Your task to perform on an android device: What's on my calendar today? Image 0: 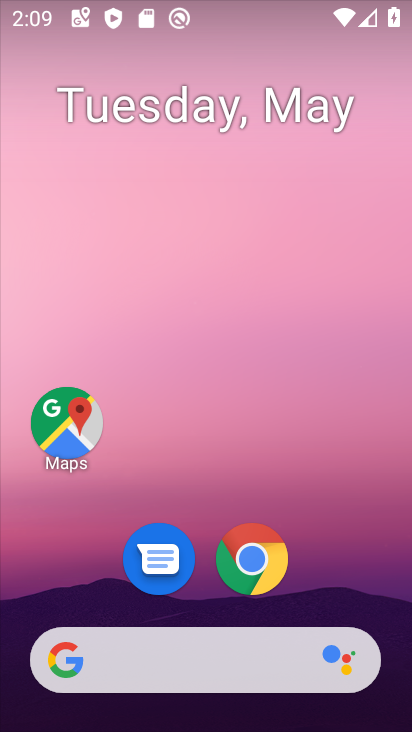
Step 0: drag from (197, 660) to (304, 160)
Your task to perform on an android device: What's on my calendar today? Image 1: 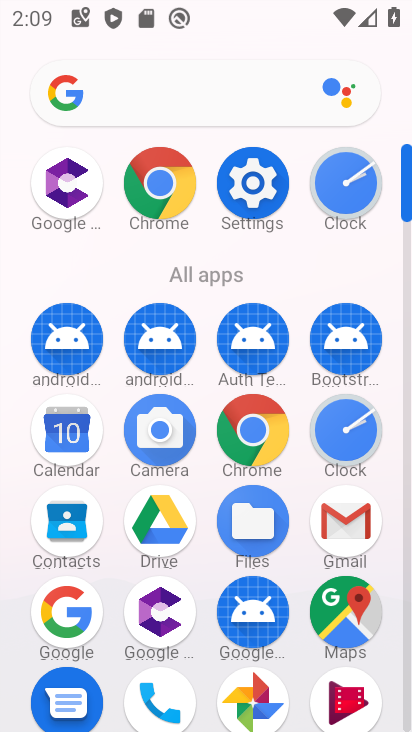
Step 1: click (73, 445)
Your task to perform on an android device: What's on my calendar today? Image 2: 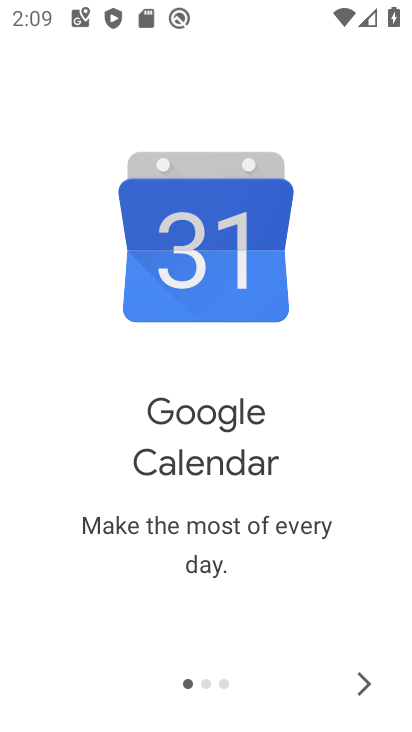
Step 2: click (371, 687)
Your task to perform on an android device: What's on my calendar today? Image 3: 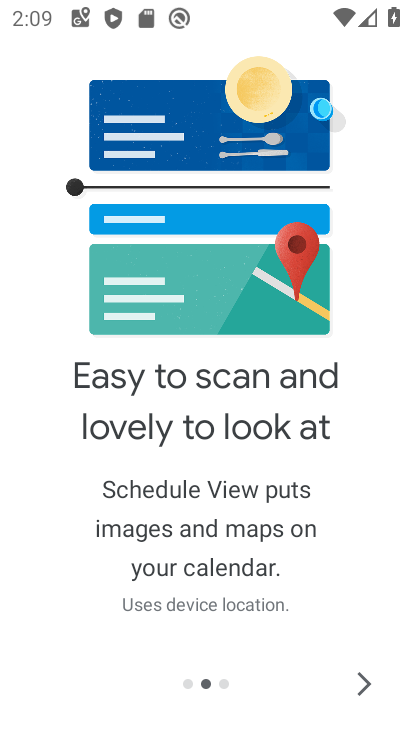
Step 3: click (367, 681)
Your task to perform on an android device: What's on my calendar today? Image 4: 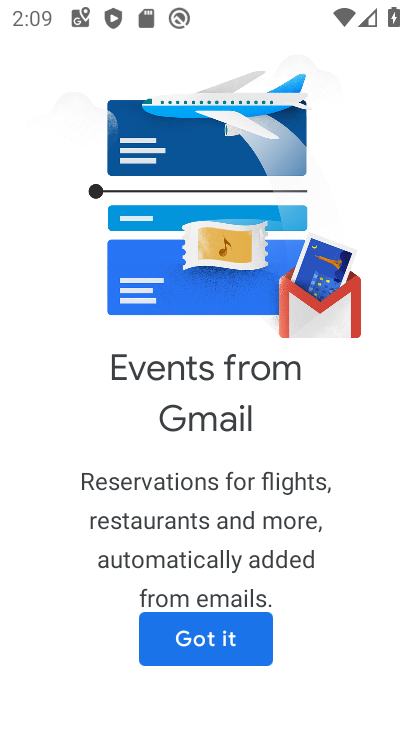
Step 4: click (231, 641)
Your task to perform on an android device: What's on my calendar today? Image 5: 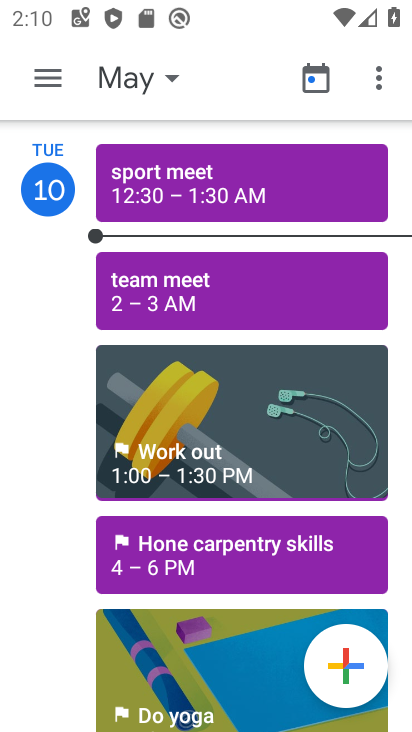
Step 5: click (114, 85)
Your task to perform on an android device: What's on my calendar today? Image 6: 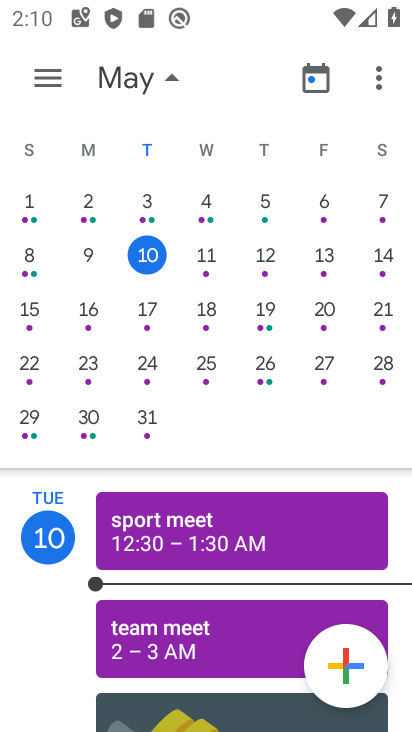
Step 6: click (53, 84)
Your task to perform on an android device: What's on my calendar today? Image 7: 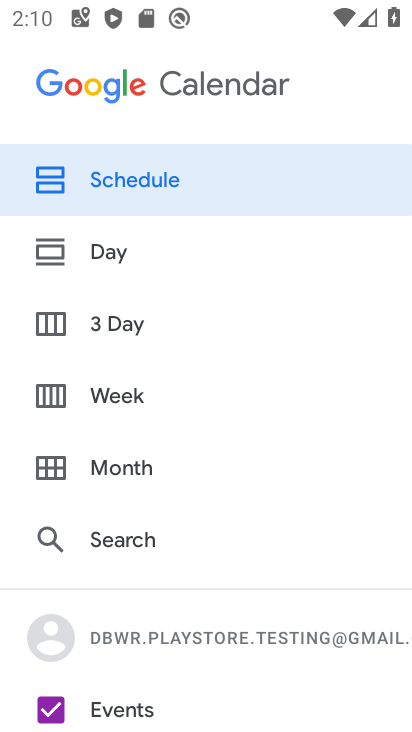
Step 7: click (108, 187)
Your task to perform on an android device: What's on my calendar today? Image 8: 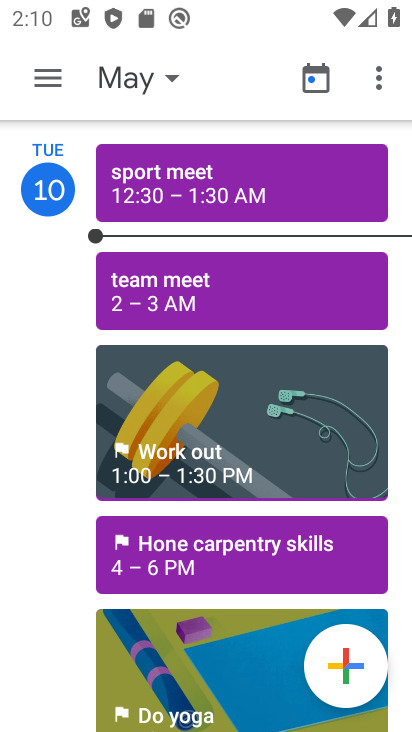
Step 8: click (198, 293)
Your task to perform on an android device: What's on my calendar today? Image 9: 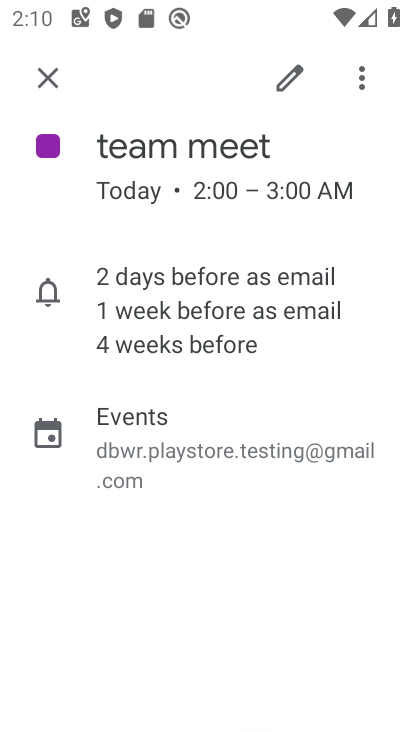
Step 9: task complete